Your task to perform on an android device: Open calendar and show me the third week of next month Image 0: 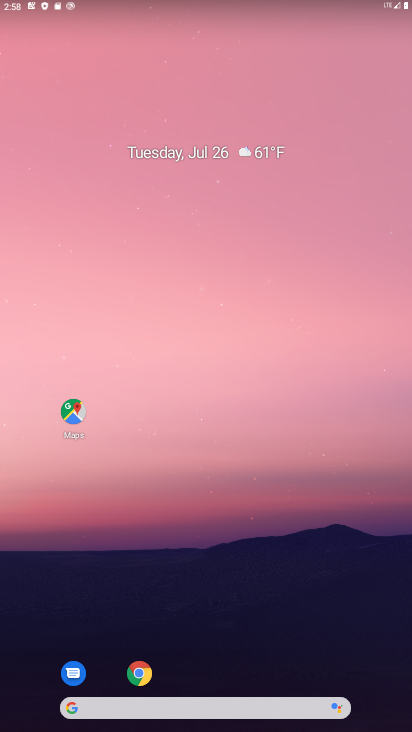
Step 0: drag from (192, 590) to (221, 355)
Your task to perform on an android device: Open calendar and show me the third week of next month Image 1: 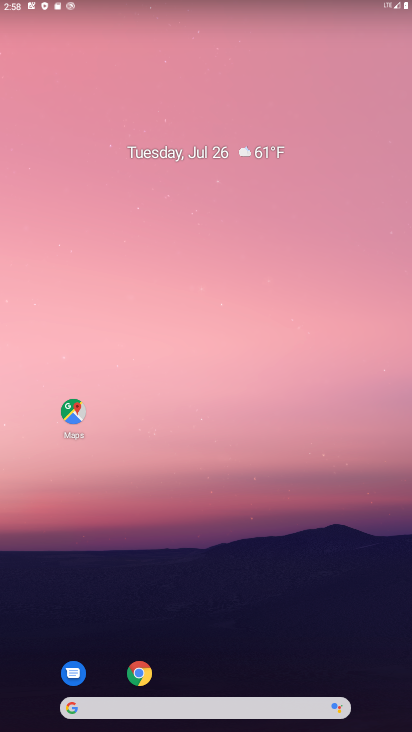
Step 1: drag from (189, 652) to (236, 282)
Your task to perform on an android device: Open calendar and show me the third week of next month Image 2: 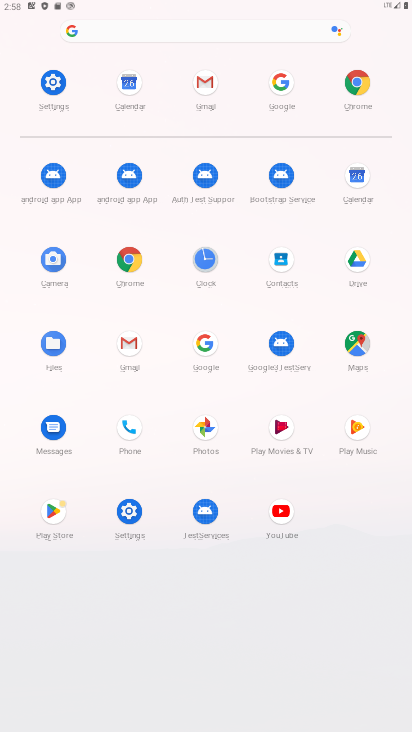
Step 2: click (354, 172)
Your task to perform on an android device: Open calendar and show me the third week of next month Image 3: 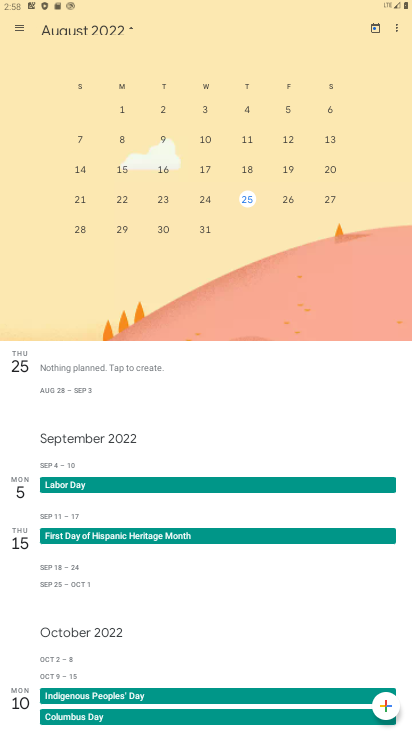
Step 3: click (242, 165)
Your task to perform on an android device: Open calendar and show me the third week of next month Image 4: 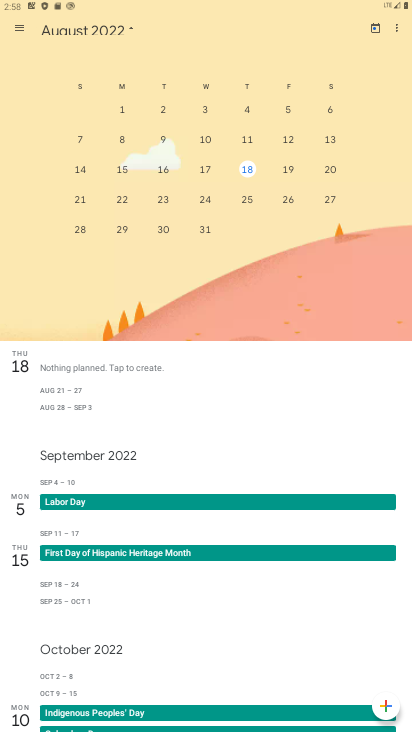
Step 4: task complete